Your task to perform on an android device: turn on showing notifications on the lock screen Image 0: 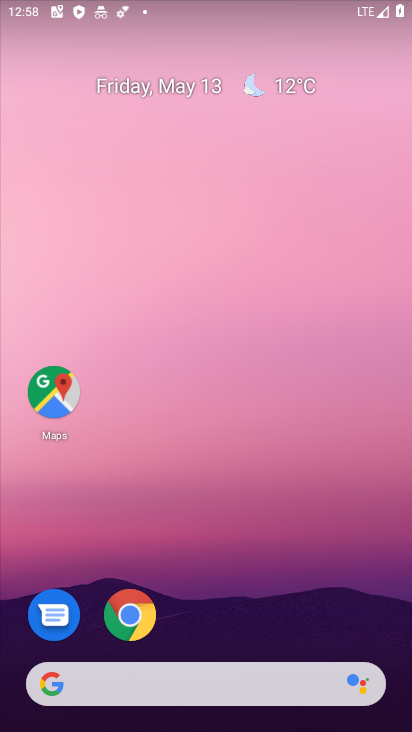
Step 0: drag from (217, 633) to (245, 234)
Your task to perform on an android device: turn on showing notifications on the lock screen Image 1: 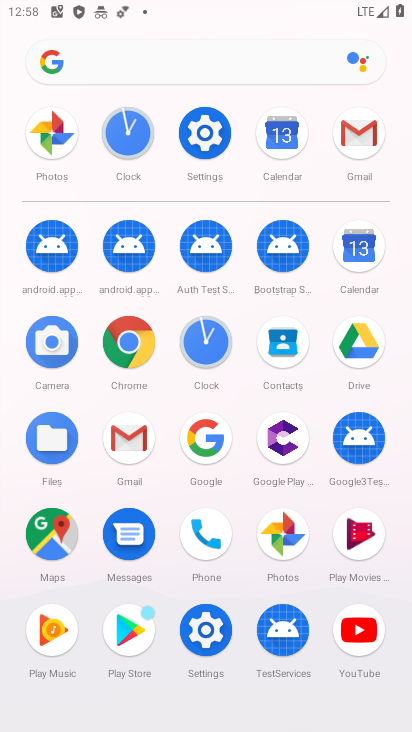
Step 1: click (197, 149)
Your task to perform on an android device: turn on showing notifications on the lock screen Image 2: 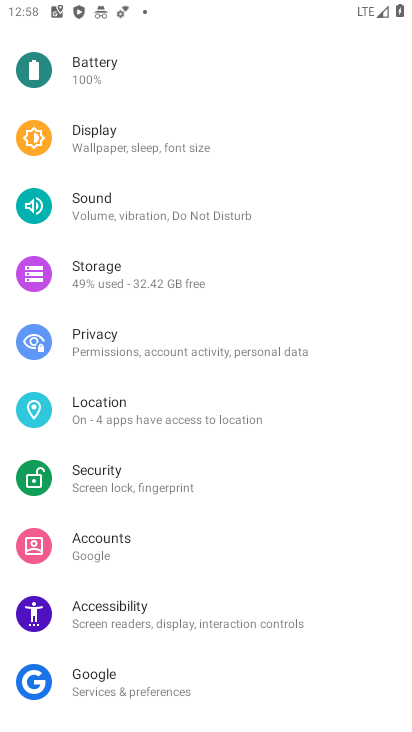
Step 2: drag from (210, 245) to (238, 606)
Your task to perform on an android device: turn on showing notifications on the lock screen Image 3: 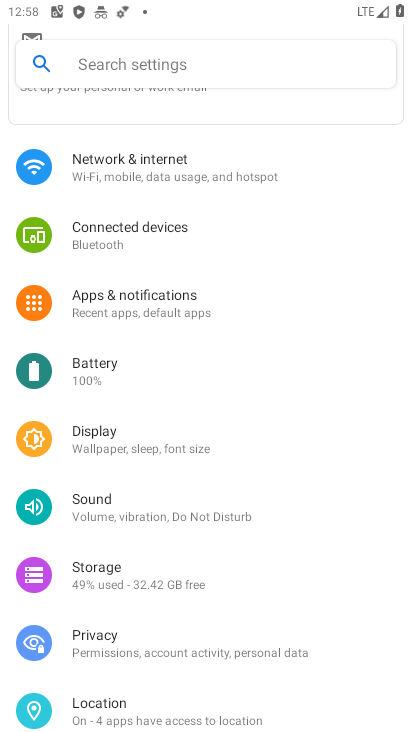
Step 3: click (175, 291)
Your task to perform on an android device: turn on showing notifications on the lock screen Image 4: 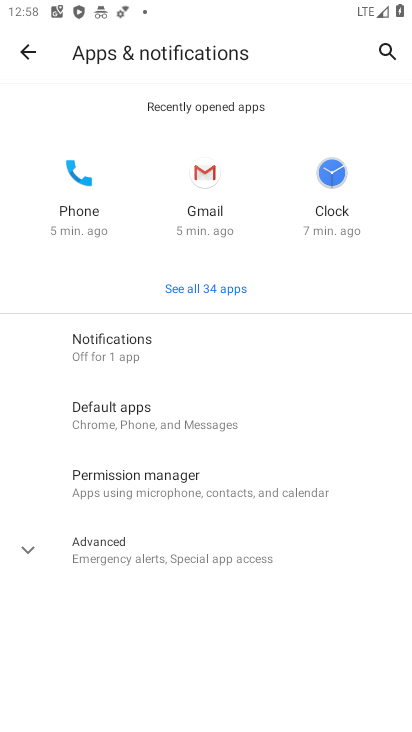
Step 4: click (181, 354)
Your task to perform on an android device: turn on showing notifications on the lock screen Image 5: 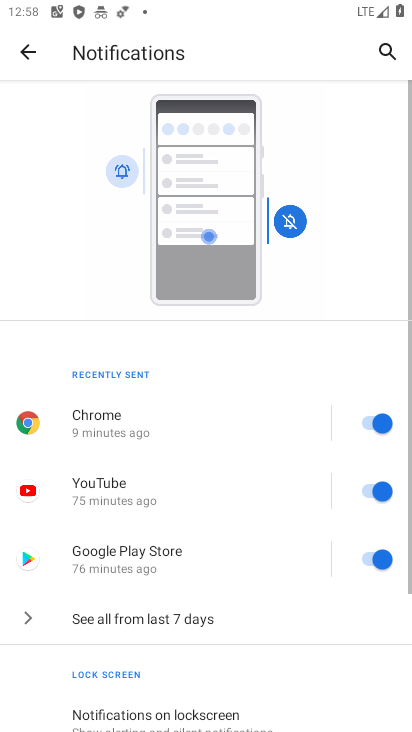
Step 5: drag from (240, 691) to (246, 368)
Your task to perform on an android device: turn on showing notifications on the lock screen Image 6: 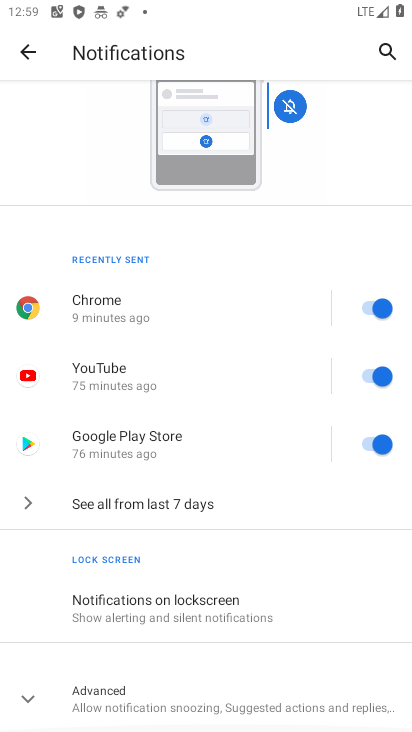
Step 6: click (232, 625)
Your task to perform on an android device: turn on showing notifications on the lock screen Image 7: 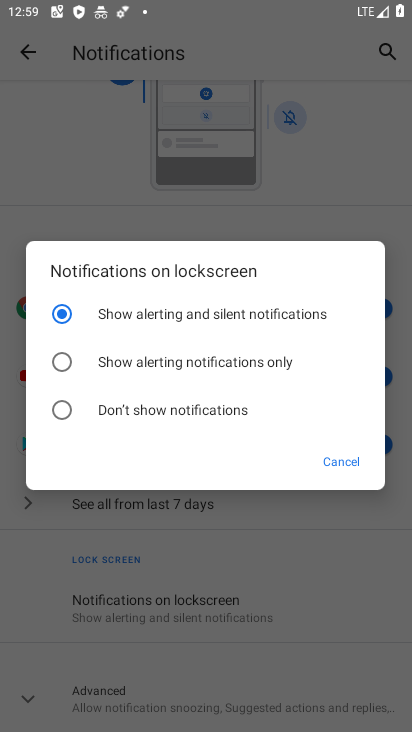
Step 7: task complete